Your task to perform on an android device: open device folders in google photos Image 0: 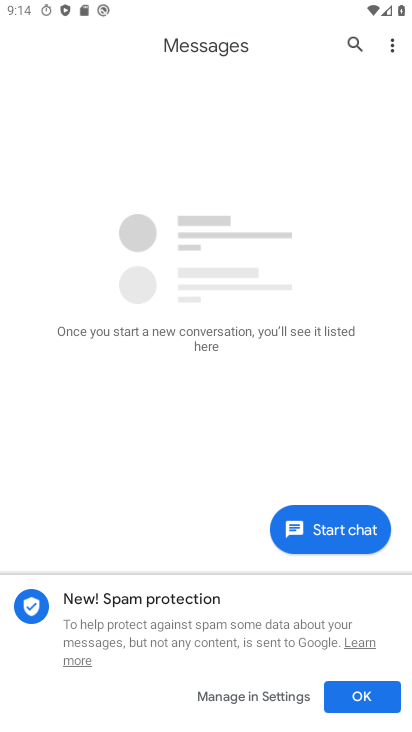
Step 0: press home button
Your task to perform on an android device: open device folders in google photos Image 1: 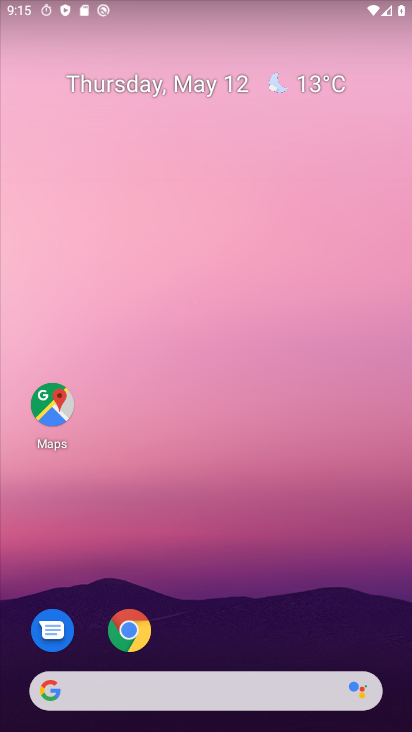
Step 1: drag from (183, 687) to (168, 101)
Your task to perform on an android device: open device folders in google photos Image 2: 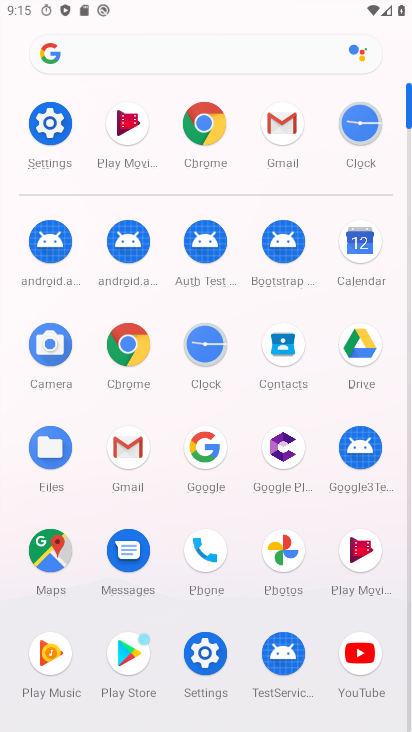
Step 2: click (285, 545)
Your task to perform on an android device: open device folders in google photos Image 3: 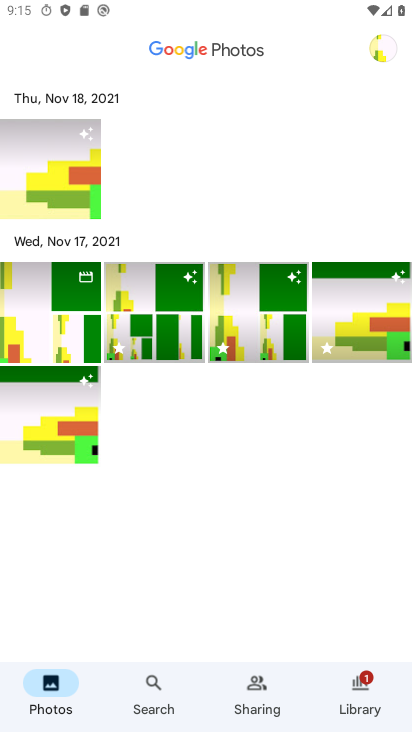
Step 3: click (364, 698)
Your task to perform on an android device: open device folders in google photos Image 4: 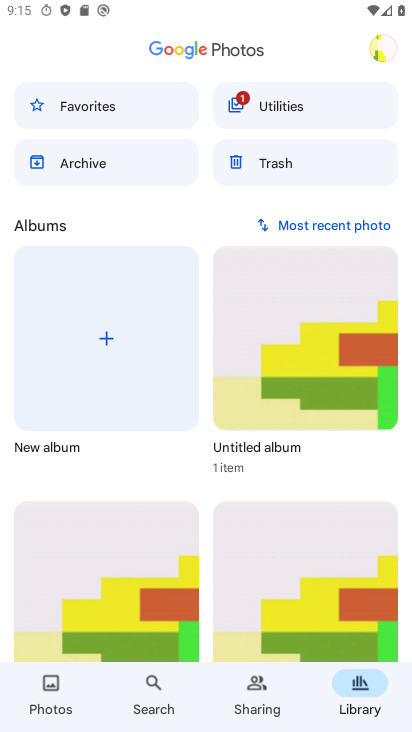
Step 4: drag from (209, 482) to (180, 199)
Your task to perform on an android device: open device folders in google photos Image 5: 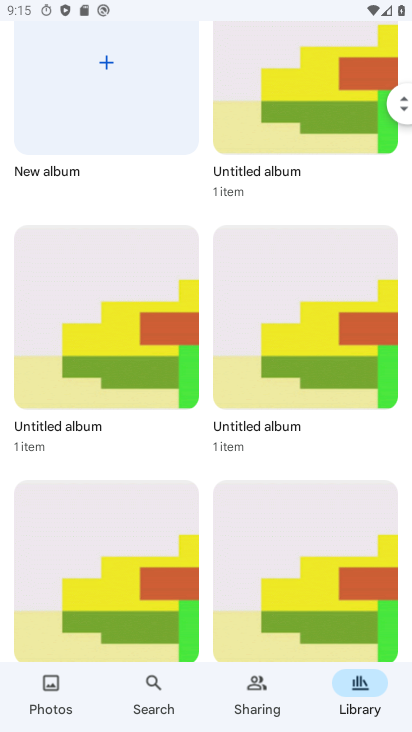
Step 5: click (130, 313)
Your task to perform on an android device: open device folders in google photos Image 6: 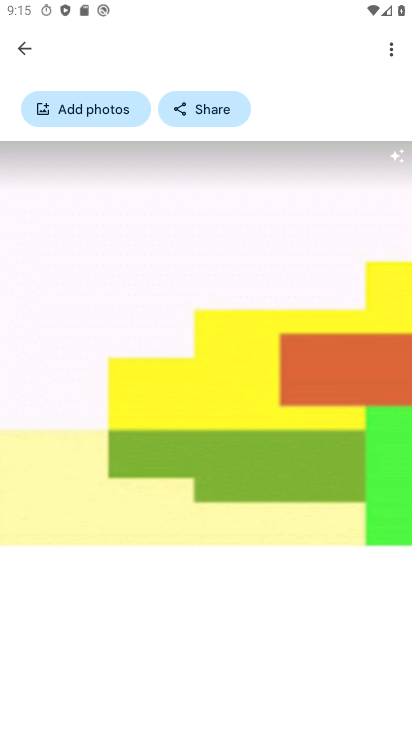
Step 6: task complete